Your task to perform on an android device: allow notifications from all sites in the chrome app Image 0: 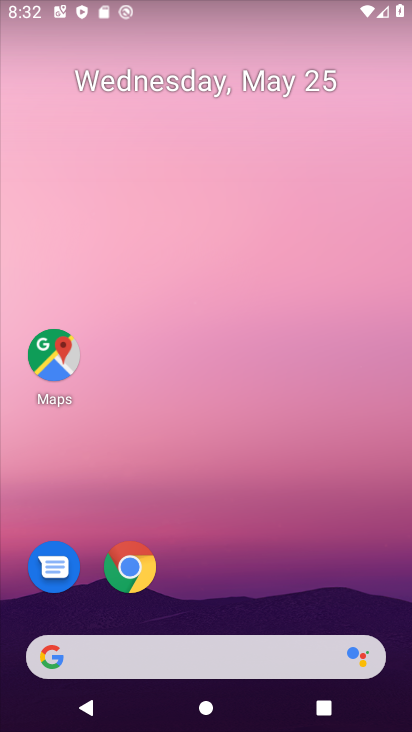
Step 0: click (141, 563)
Your task to perform on an android device: allow notifications from all sites in the chrome app Image 1: 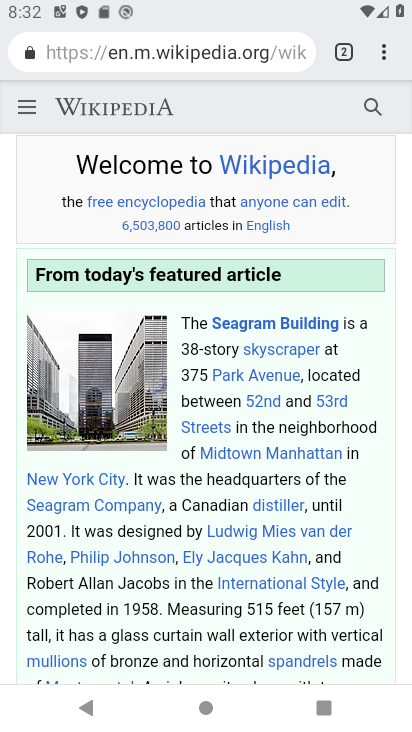
Step 1: click (394, 55)
Your task to perform on an android device: allow notifications from all sites in the chrome app Image 2: 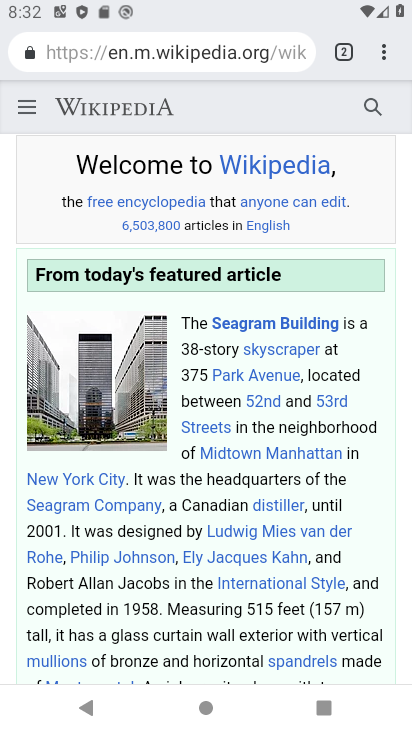
Step 2: click (381, 60)
Your task to perform on an android device: allow notifications from all sites in the chrome app Image 3: 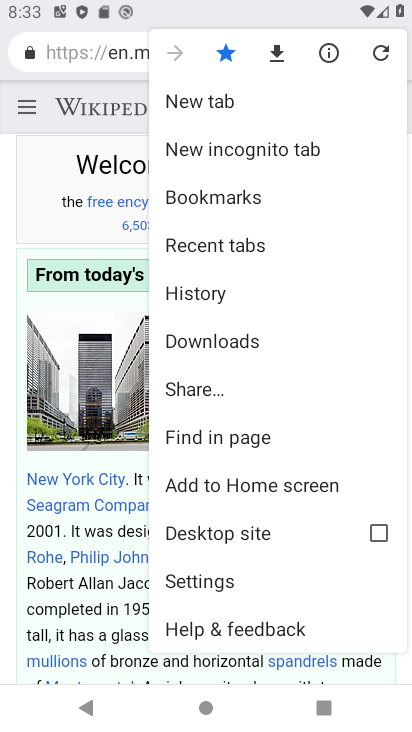
Step 3: click (198, 573)
Your task to perform on an android device: allow notifications from all sites in the chrome app Image 4: 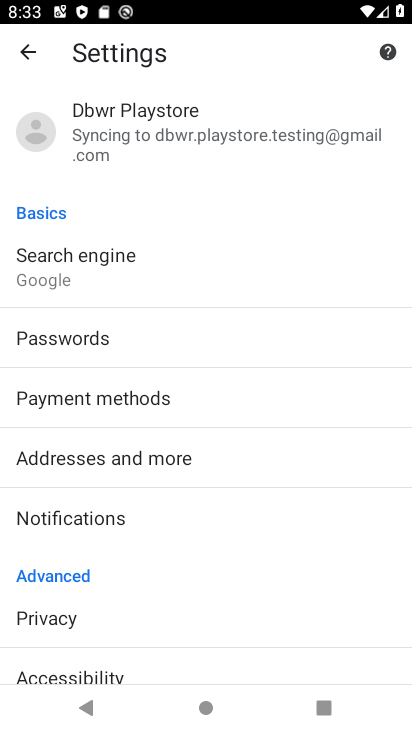
Step 4: task complete